Your task to perform on an android device: Open calendar and show me the fourth week of next month Image 0: 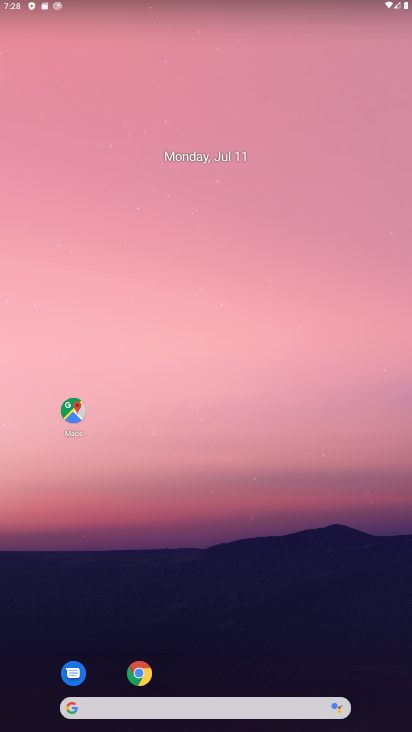
Step 0: drag from (219, 660) to (226, 288)
Your task to perform on an android device: Open calendar and show me the fourth week of next month Image 1: 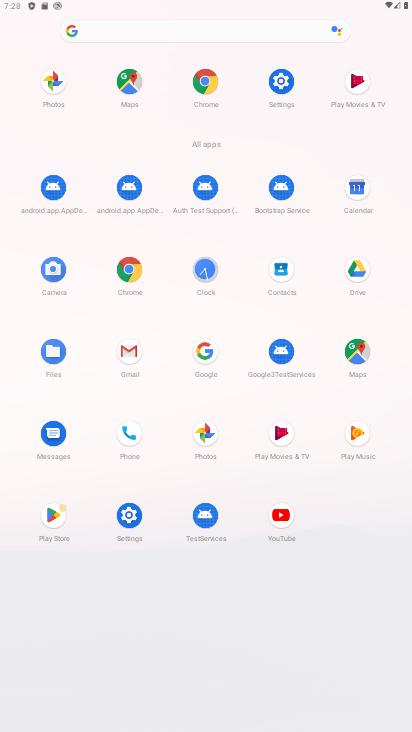
Step 1: click (356, 197)
Your task to perform on an android device: Open calendar and show me the fourth week of next month Image 2: 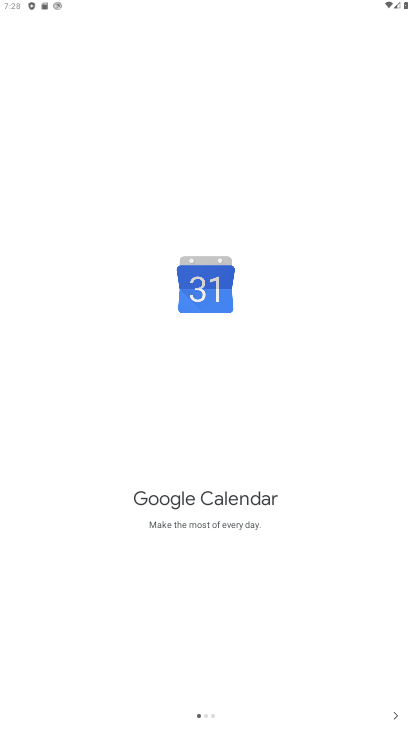
Step 2: click (395, 713)
Your task to perform on an android device: Open calendar and show me the fourth week of next month Image 3: 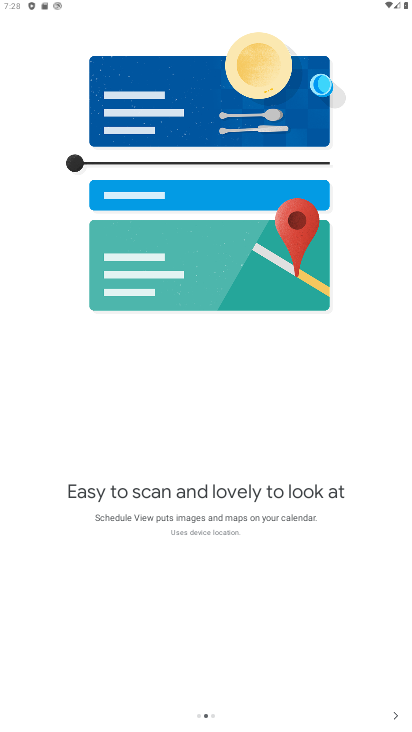
Step 3: click (395, 713)
Your task to perform on an android device: Open calendar and show me the fourth week of next month Image 4: 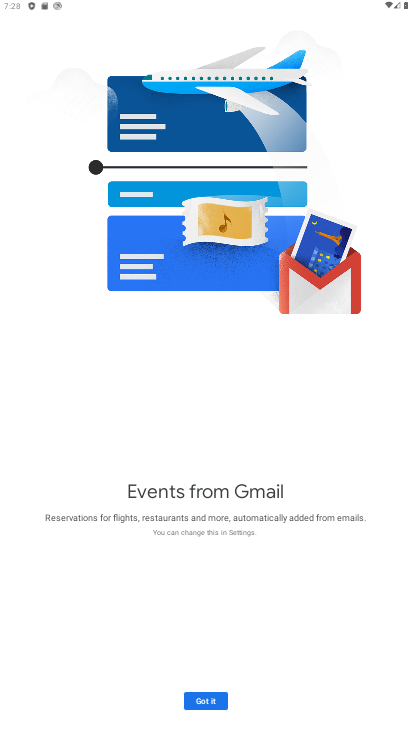
Step 4: click (207, 699)
Your task to perform on an android device: Open calendar and show me the fourth week of next month Image 5: 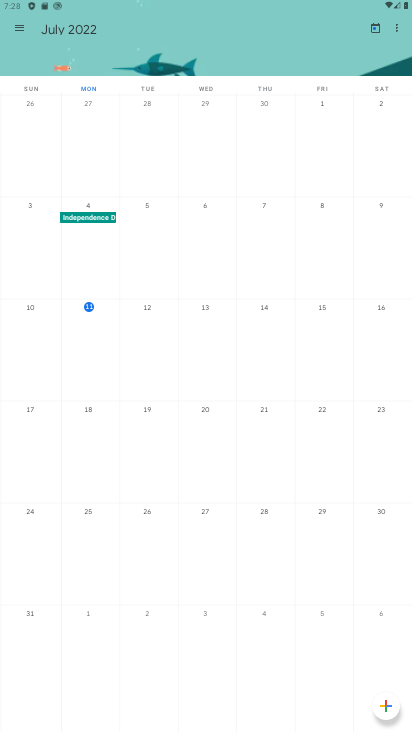
Step 5: drag from (385, 409) to (9, 370)
Your task to perform on an android device: Open calendar and show me the fourth week of next month Image 6: 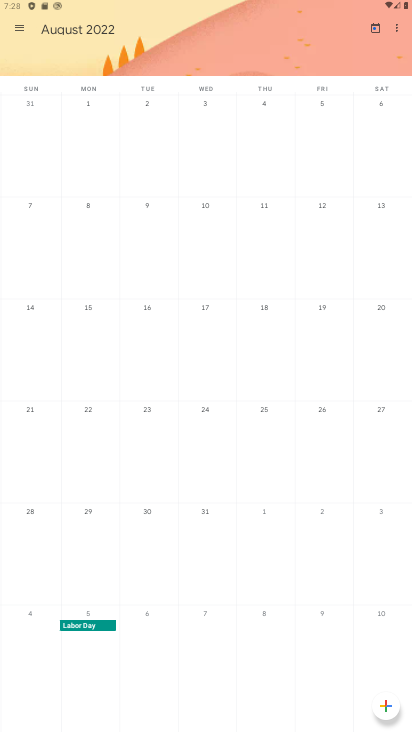
Step 6: click (30, 413)
Your task to perform on an android device: Open calendar and show me the fourth week of next month Image 7: 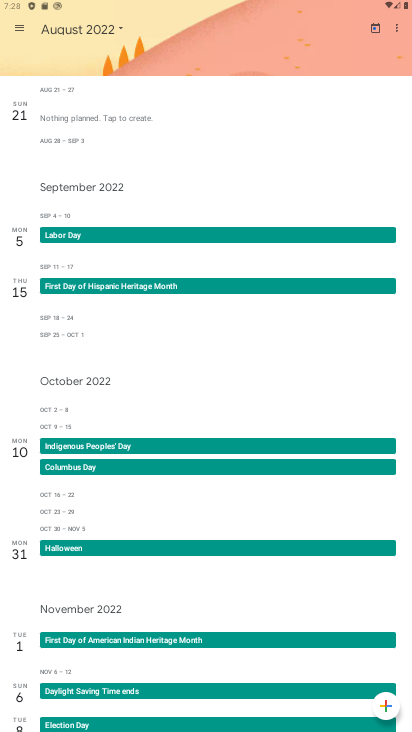
Step 7: task complete